Your task to perform on an android device: Open Maps and search for coffee Image 0: 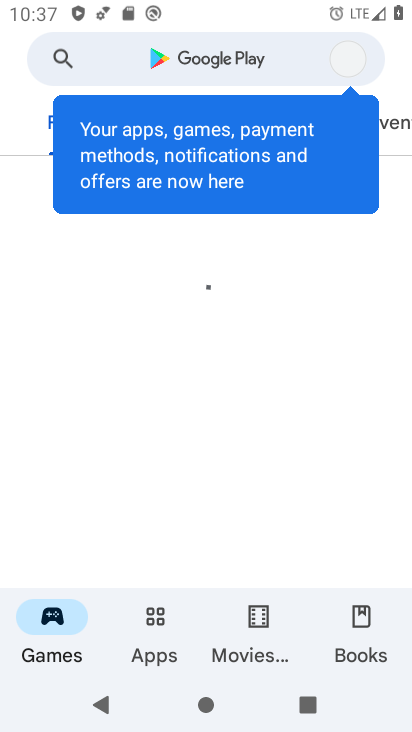
Step 0: press home button
Your task to perform on an android device: Open Maps and search for coffee Image 1: 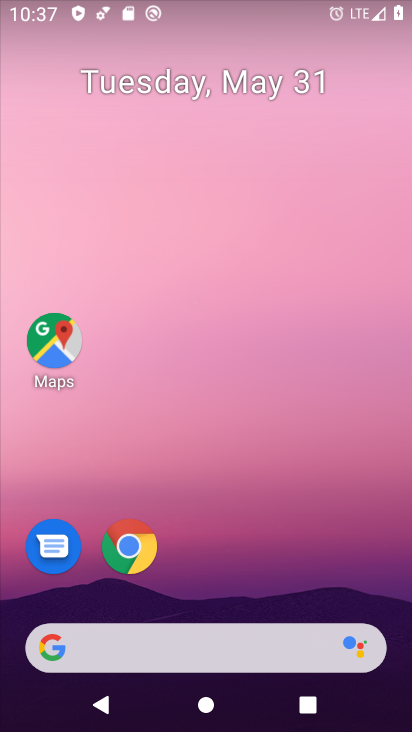
Step 1: drag from (154, 609) to (239, 32)
Your task to perform on an android device: Open Maps and search for coffee Image 2: 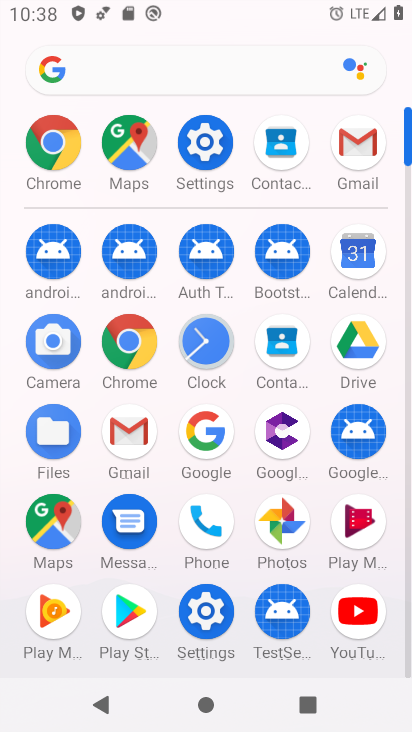
Step 2: click (61, 519)
Your task to perform on an android device: Open Maps and search for coffee Image 3: 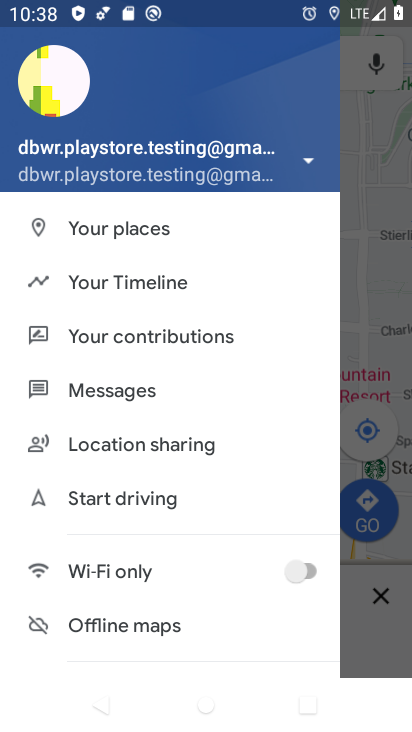
Step 3: click (365, 557)
Your task to perform on an android device: Open Maps and search for coffee Image 4: 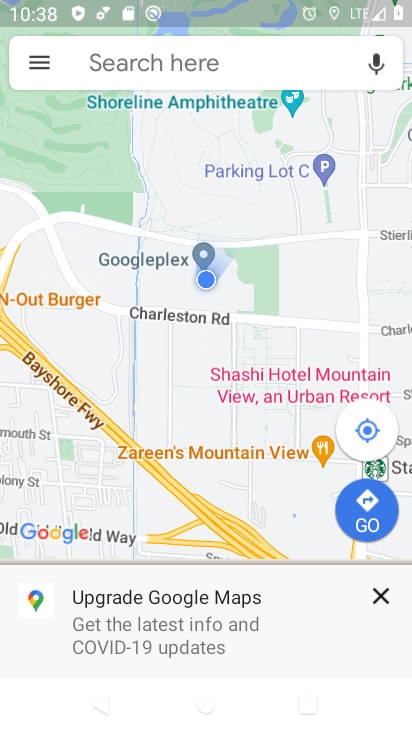
Step 4: click (180, 45)
Your task to perform on an android device: Open Maps and search for coffee Image 5: 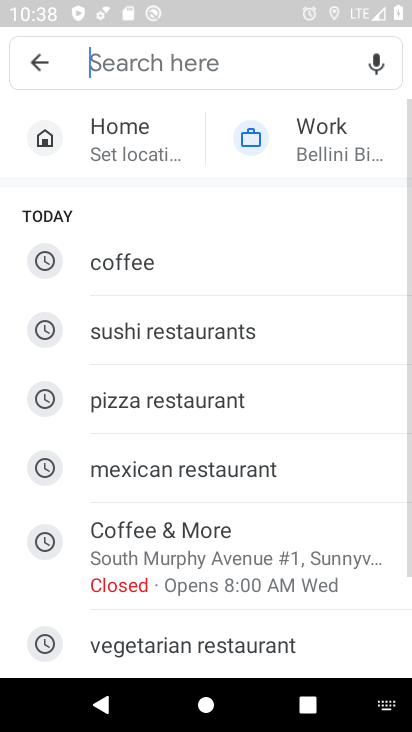
Step 5: click (152, 266)
Your task to perform on an android device: Open Maps and search for coffee Image 6: 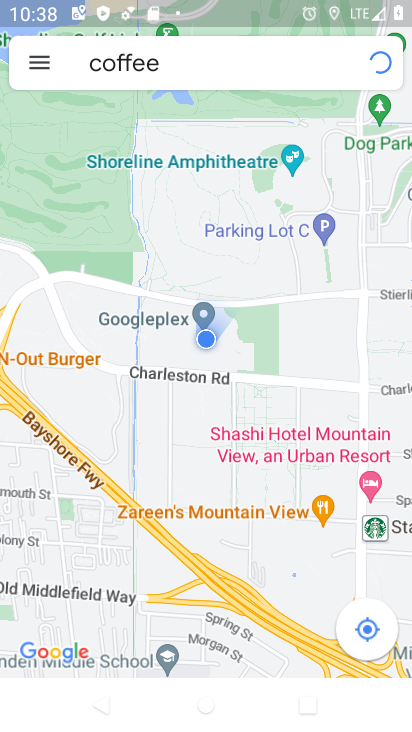
Step 6: task complete